Your task to perform on an android device: change text size in settings app Image 0: 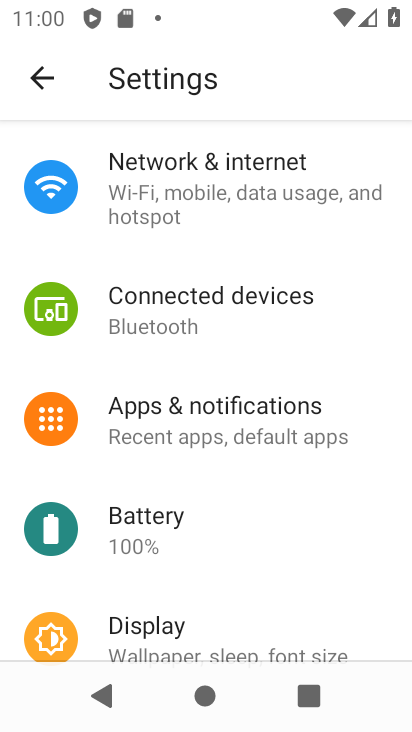
Step 0: click (167, 618)
Your task to perform on an android device: change text size in settings app Image 1: 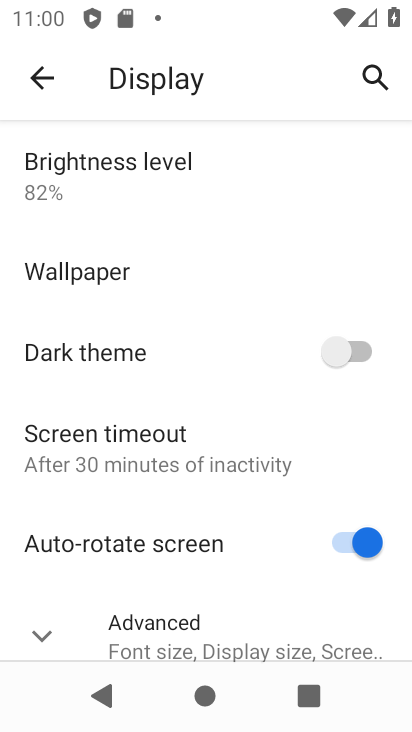
Step 1: click (155, 615)
Your task to perform on an android device: change text size in settings app Image 2: 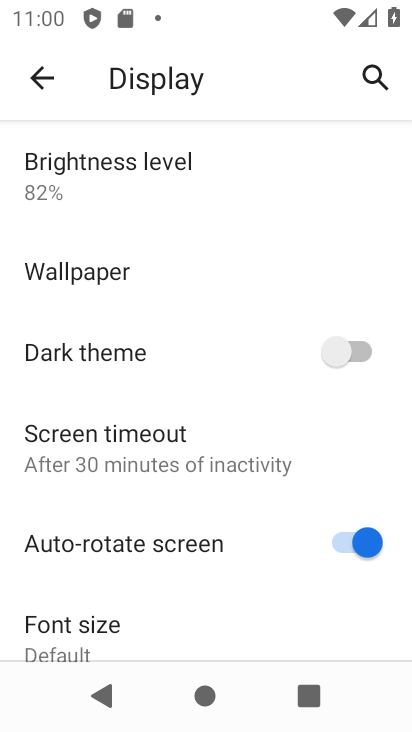
Step 2: click (136, 627)
Your task to perform on an android device: change text size in settings app Image 3: 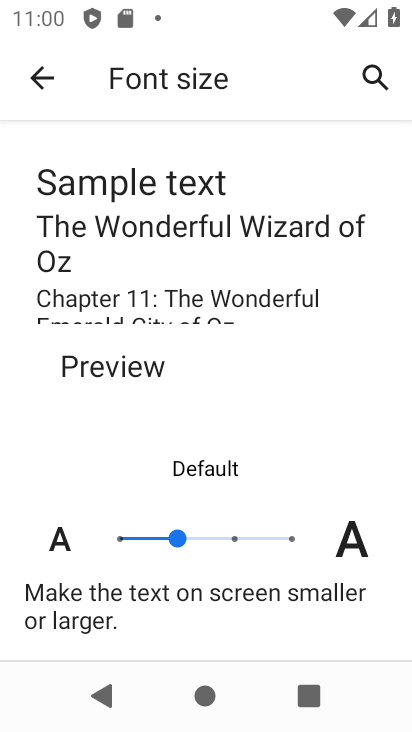
Step 3: task complete